Your task to perform on an android device: Go to CNN.com Image 0: 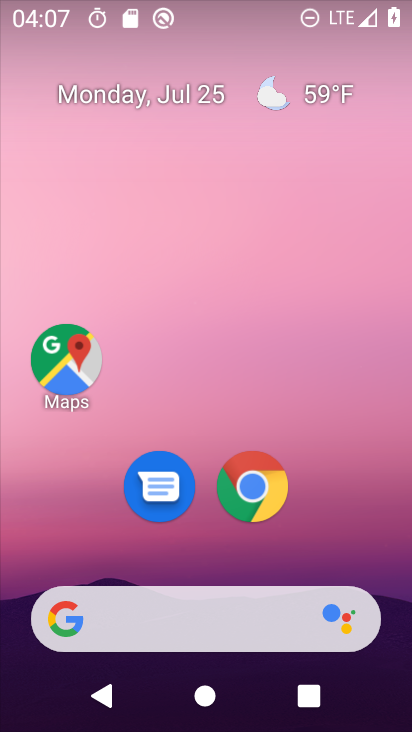
Step 0: click (264, 483)
Your task to perform on an android device: Go to CNN.com Image 1: 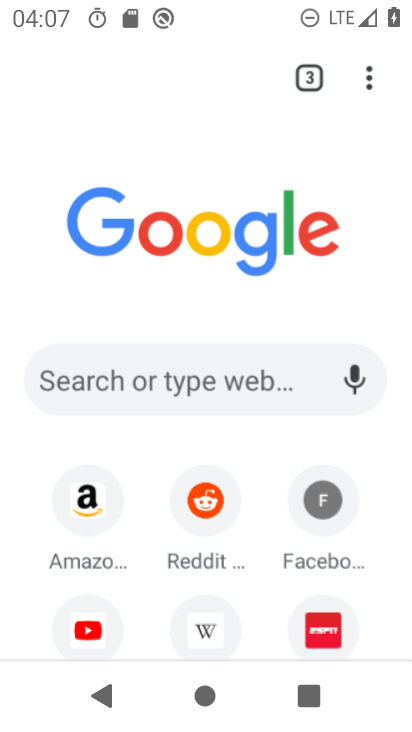
Step 1: click (156, 370)
Your task to perform on an android device: Go to CNN.com Image 2: 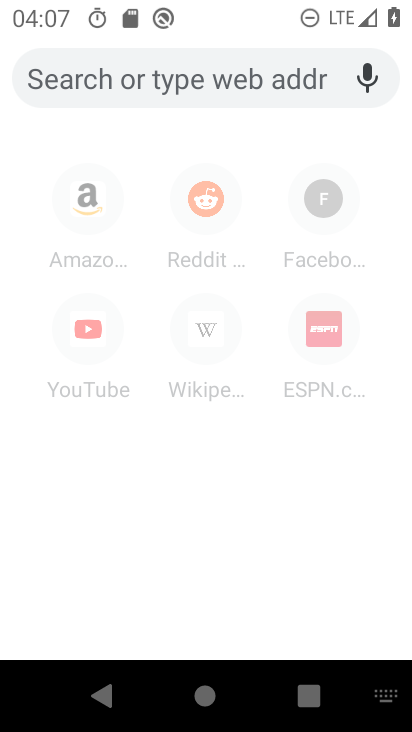
Step 2: type "cnn.com"
Your task to perform on an android device: Go to CNN.com Image 3: 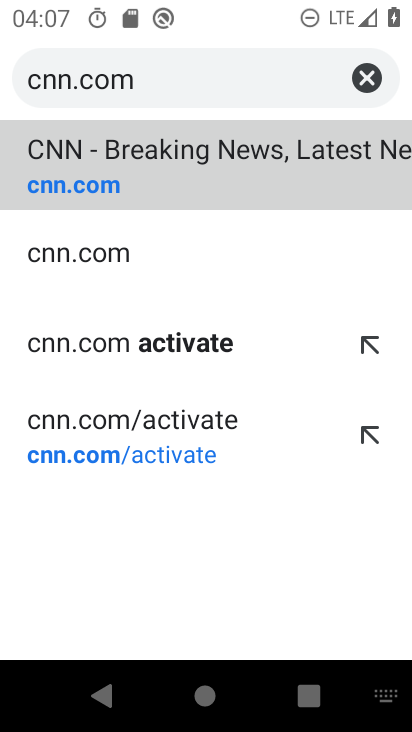
Step 3: click (112, 169)
Your task to perform on an android device: Go to CNN.com Image 4: 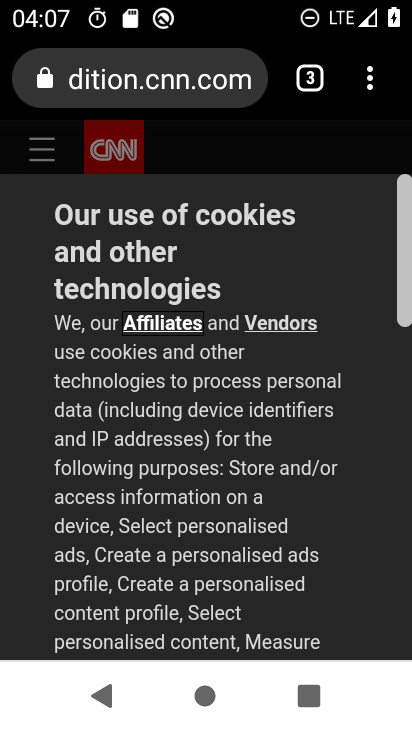
Step 4: task complete